Your task to perform on an android device: toggle improve location accuracy Image 0: 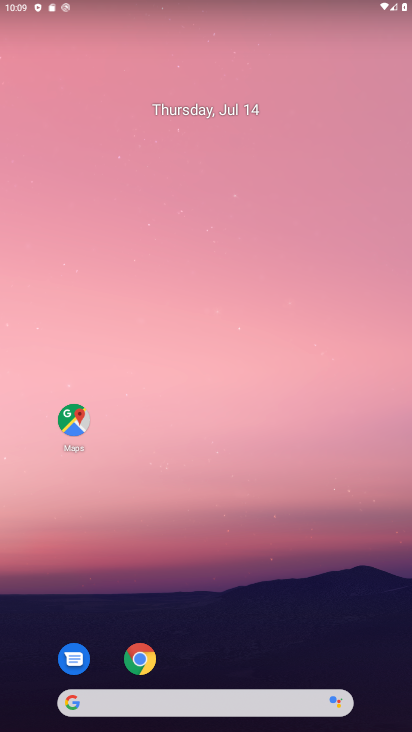
Step 0: drag from (254, 661) to (256, 257)
Your task to perform on an android device: toggle improve location accuracy Image 1: 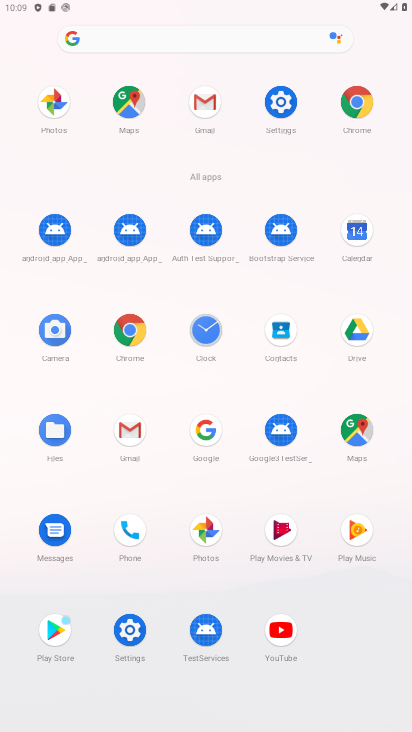
Step 1: click (286, 88)
Your task to perform on an android device: toggle improve location accuracy Image 2: 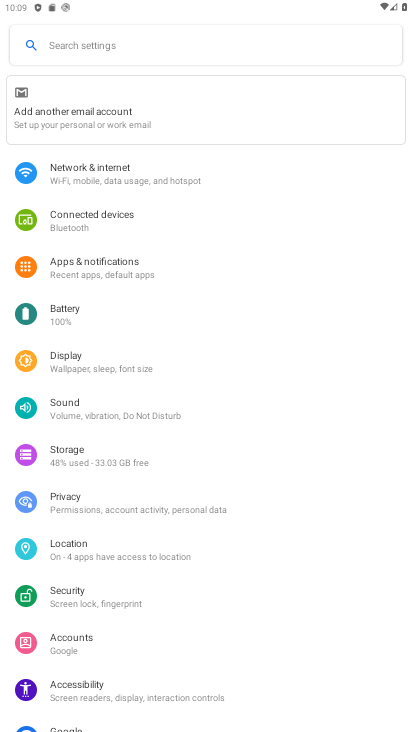
Step 2: click (82, 551)
Your task to perform on an android device: toggle improve location accuracy Image 3: 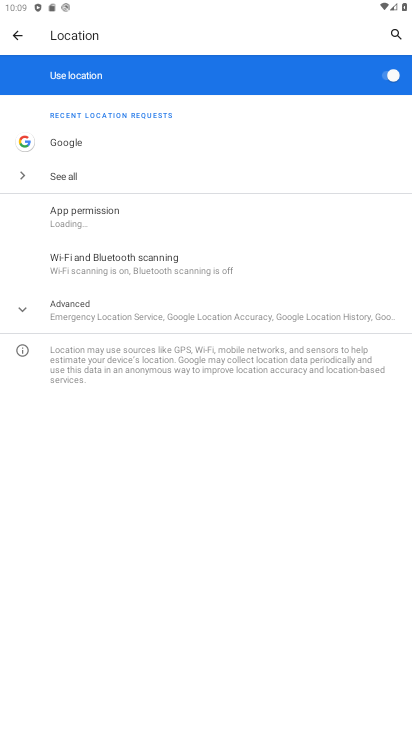
Step 3: click (111, 316)
Your task to perform on an android device: toggle improve location accuracy Image 4: 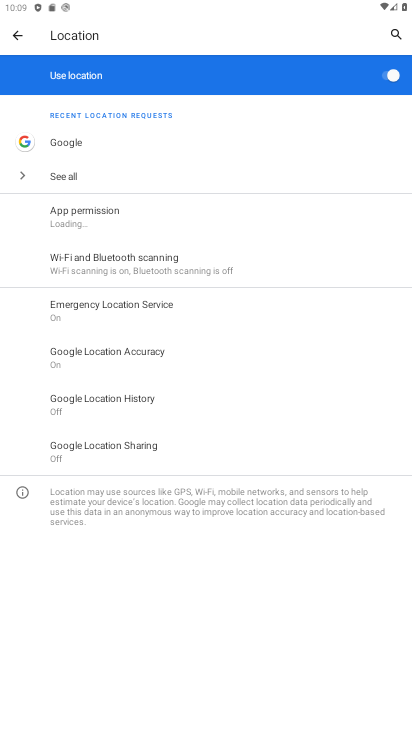
Step 4: click (135, 366)
Your task to perform on an android device: toggle improve location accuracy Image 5: 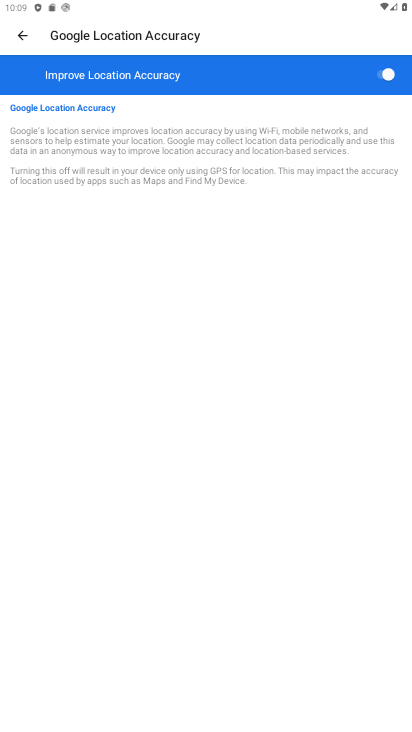
Step 5: click (391, 74)
Your task to perform on an android device: toggle improve location accuracy Image 6: 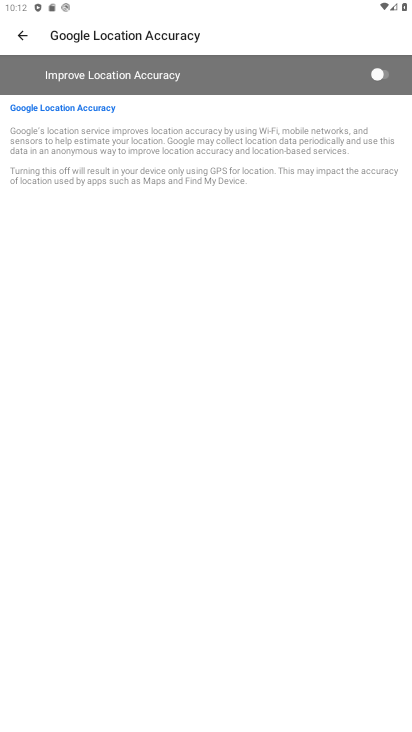
Step 6: task complete